Your task to perform on an android device: change notification settings in the gmail app Image 0: 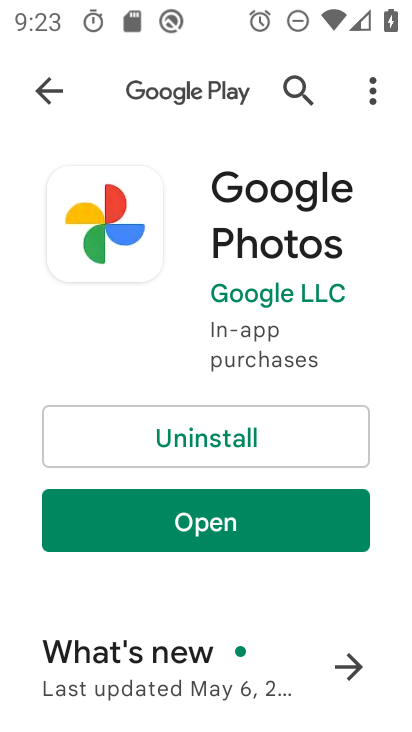
Step 0: press home button
Your task to perform on an android device: change notification settings in the gmail app Image 1: 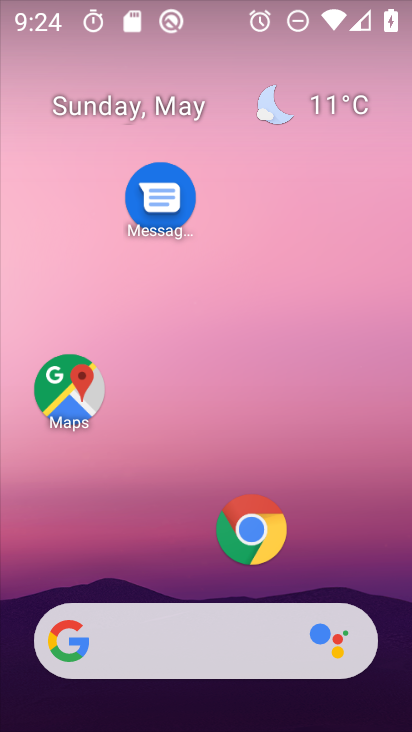
Step 1: drag from (179, 567) to (268, 1)
Your task to perform on an android device: change notification settings in the gmail app Image 2: 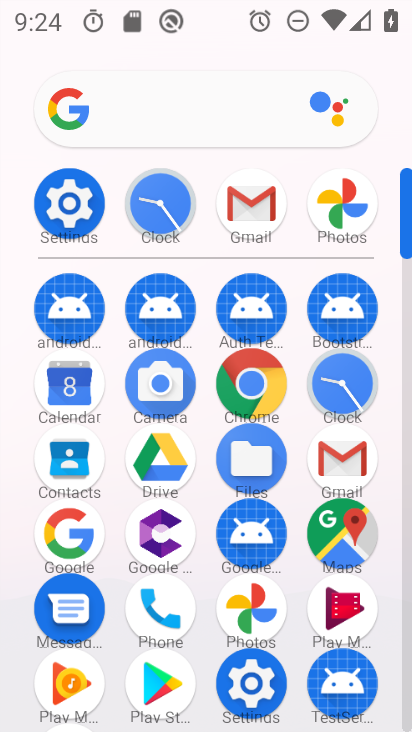
Step 2: click (242, 199)
Your task to perform on an android device: change notification settings in the gmail app Image 3: 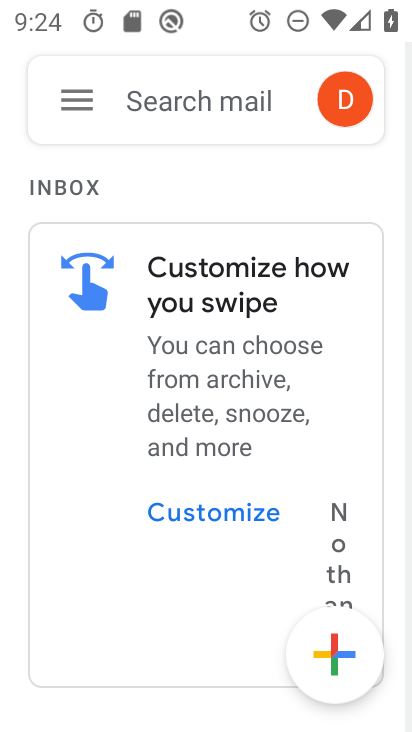
Step 3: click (69, 94)
Your task to perform on an android device: change notification settings in the gmail app Image 4: 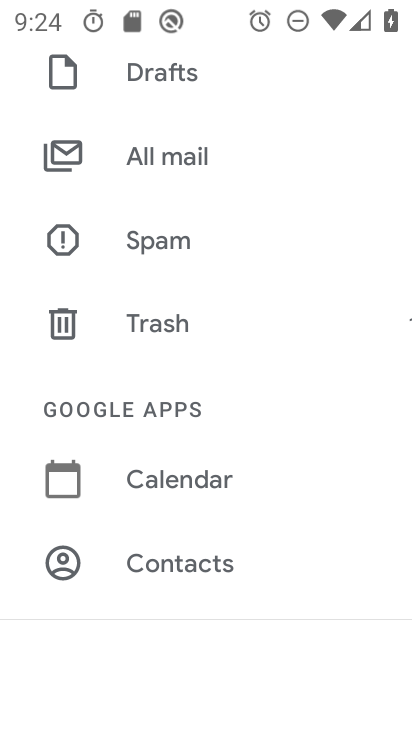
Step 4: drag from (142, 592) to (249, 42)
Your task to perform on an android device: change notification settings in the gmail app Image 5: 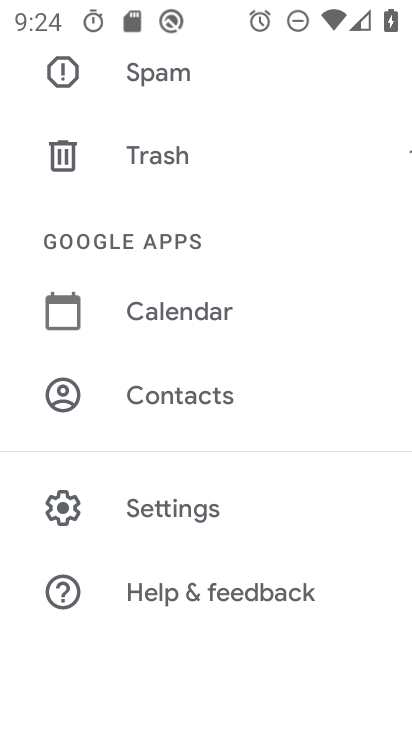
Step 5: click (152, 514)
Your task to perform on an android device: change notification settings in the gmail app Image 6: 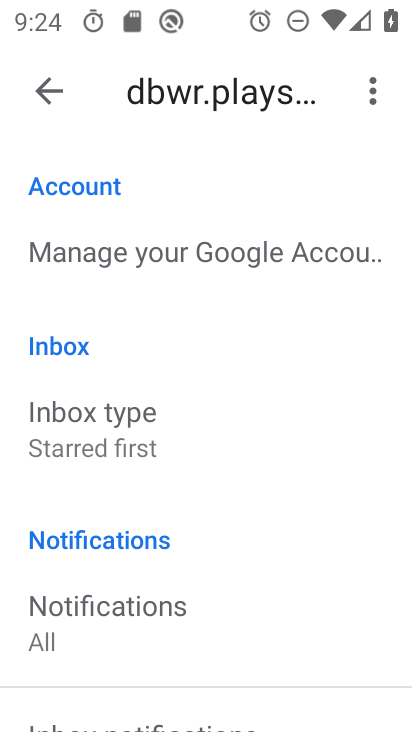
Step 6: drag from (204, 669) to (241, 246)
Your task to perform on an android device: change notification settings in the gmail app Image 7: 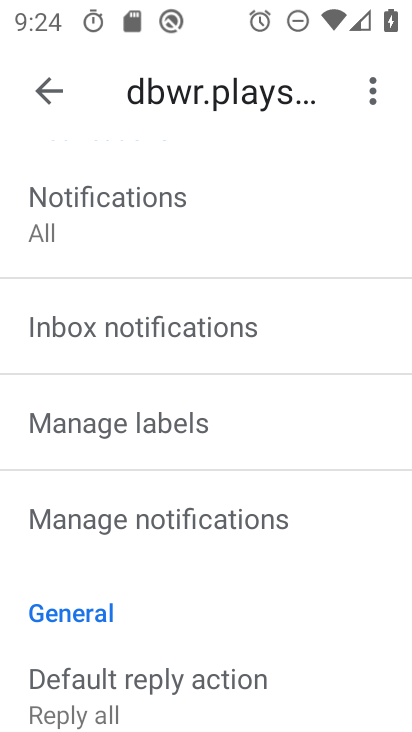
Step 7: click (55, 103)
Your task to perform on an android device: change notification settings in the gmail app Image 8: 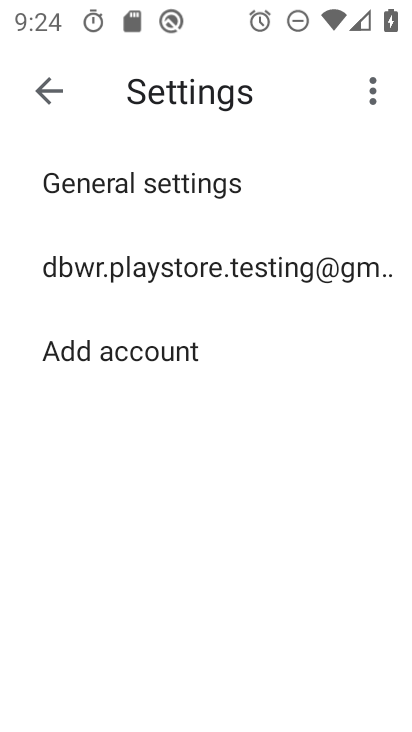
Step 8: click (141, 183)
Your task to perform on an android device: change notification settings in the gmail app Image 9: 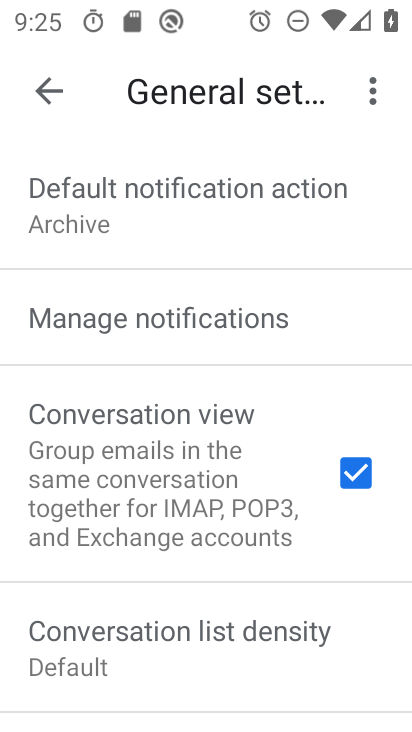
Step 9: click (209, 306)
Your task to perform on an android device: change notification settings in the gmail app Image 10: 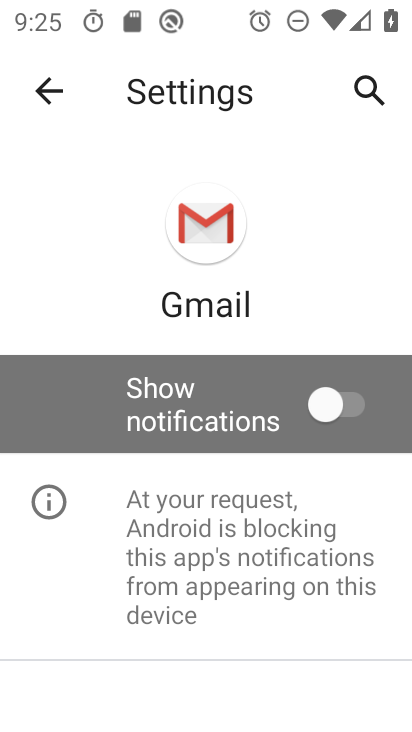
Step 10: click (350, 408)
Your task to perform on an android device: change notification settings in the gmail app Image 11: 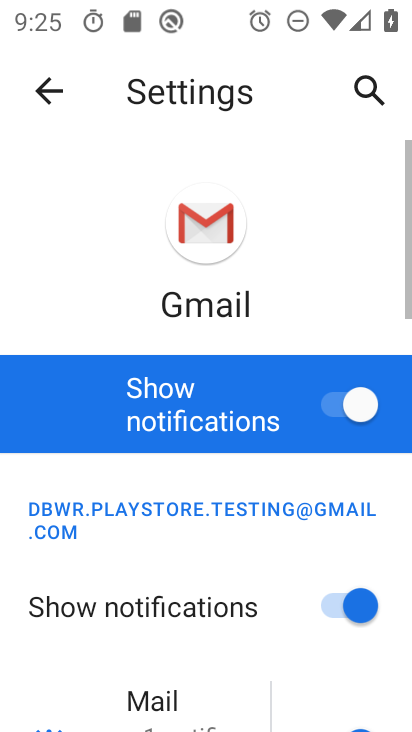
Step 11: task complete